Your task to perform on an android device: Open Google Chrome and click the shortcut for Amazon.com Image 0: 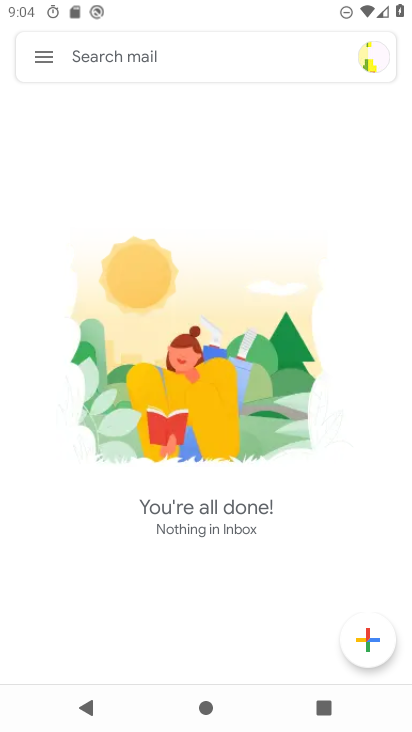
Step 0: press home button
Your task to perform on an android device: Open Google Chrome and click the shortcut for Amazon.com Image 1: 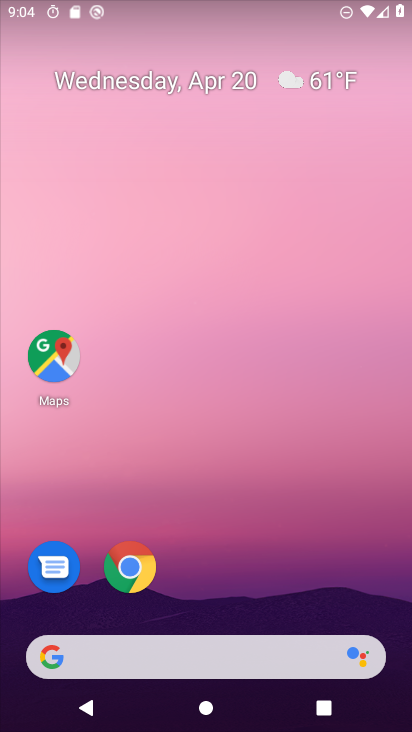
Step 1: click (139, 581)
Your task to perform on an android device: Open Google Chrome and click the shortcut for Amazon.com Image 2: 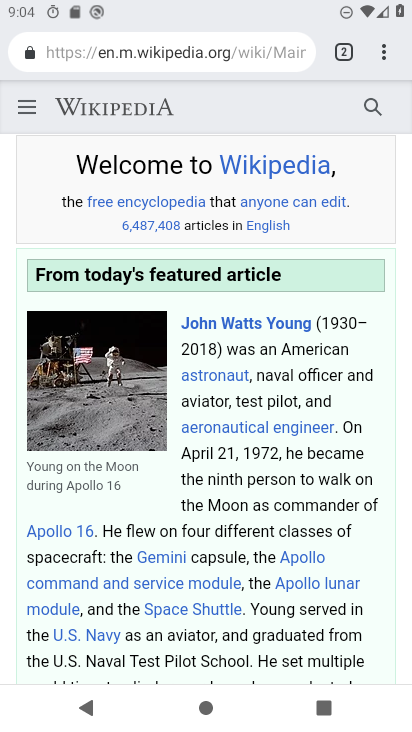
Step 2: click (383, 54)
Your task to perform on an android device: Open Google Chrome and click the shortcut for Amazon.com Image 3: 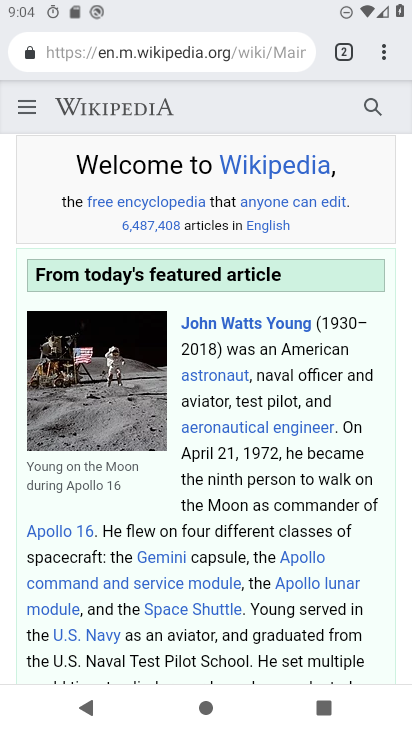
Step 3: click (383, 50)
Your task to perform on an android device: Open Google Chrome and click the shortcut for Amazon.com Image 4: 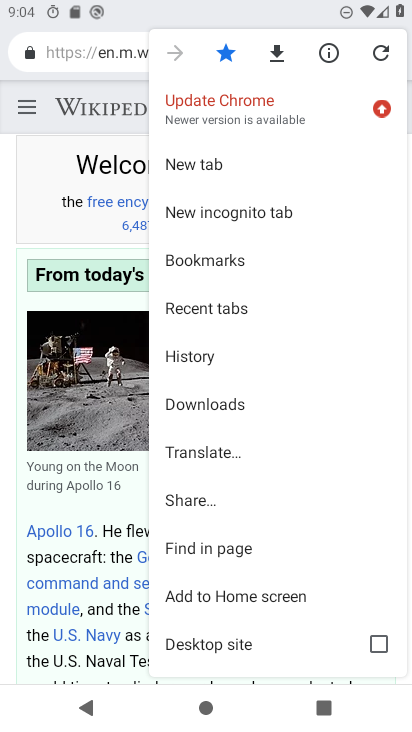
Step 4: click (200, 165)
Your task to perform on an android device: Open Google Chrome and click the shortcut for Amazon.com Image 5: 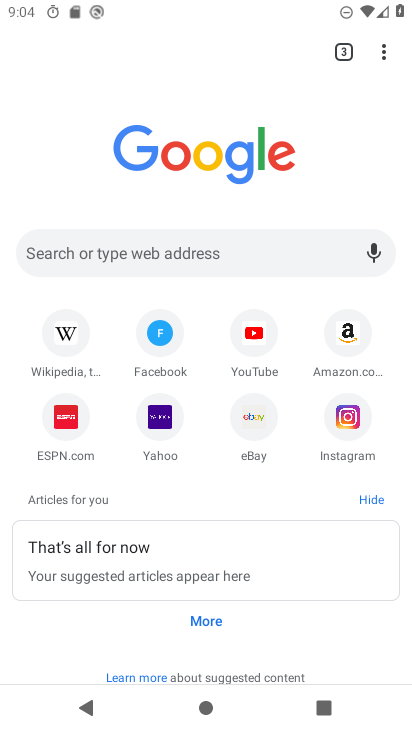
Step 5: click (334, 344)
Your task to perform on an android device: Open Google Chrome and click the shortcut for Amazon.com Image 6: 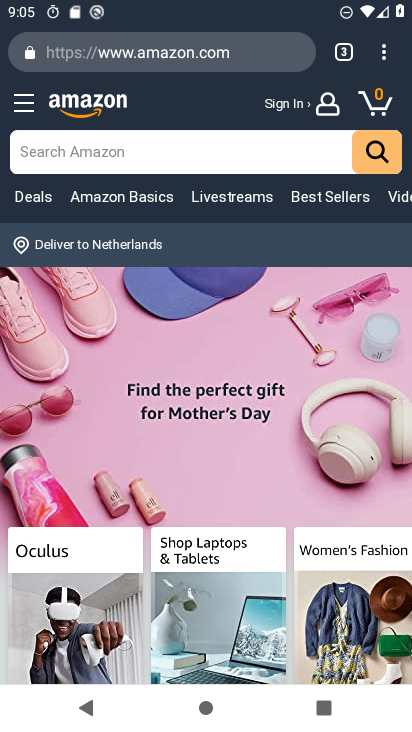
Step 6: task complete